Your task to perform on an android device: turn off wifi Image 0: 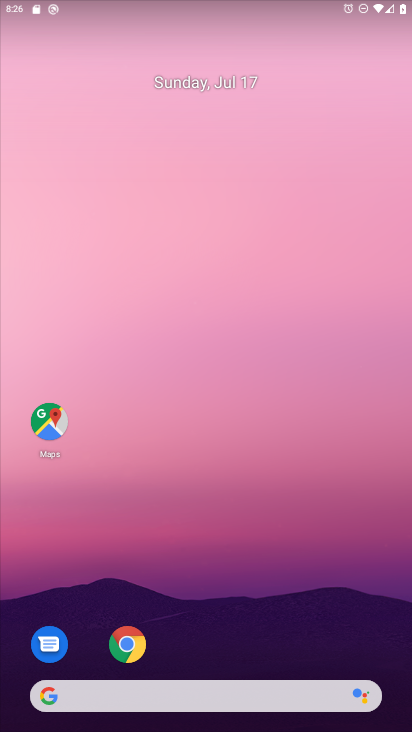
Step 0: drag from (238, 667) to (409, 388)
Your task to perform on an android device: turn off wifi Image 1: 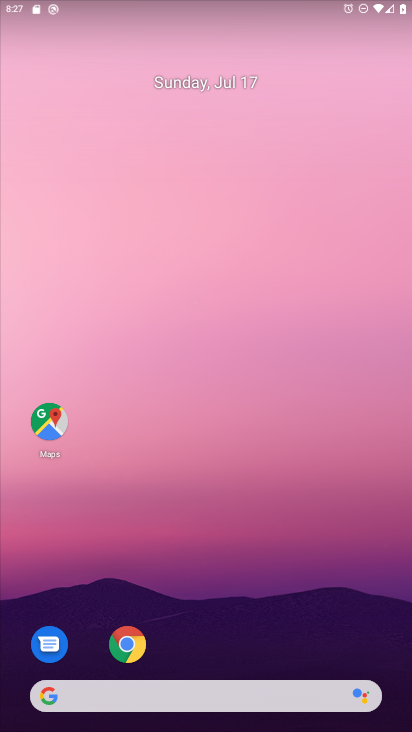
Step 1: click (201, 110)
Your task to perform on an android device: turn off wifi Image 2: 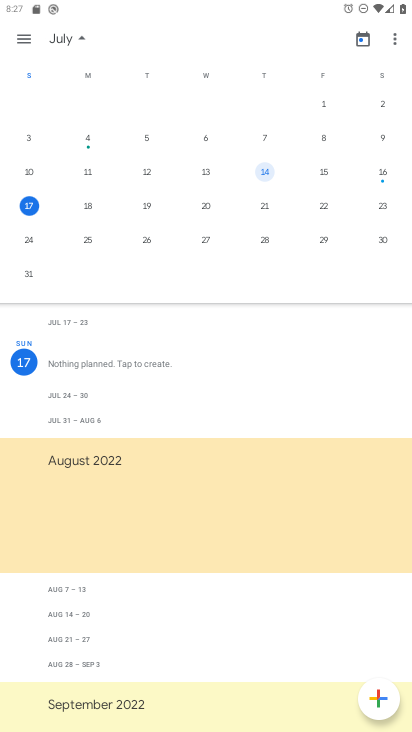
Step 2: press back button
Your task to perform on an android device: turn off wifi Image 3: 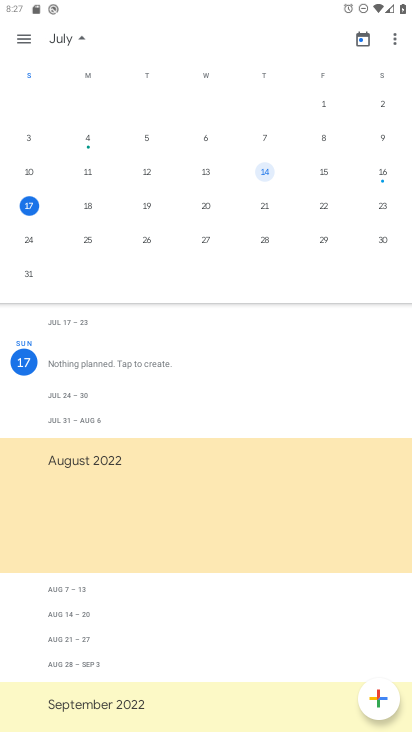
Step 3: press back button
Your task to perform on an android device: turn off wifi Image 4: 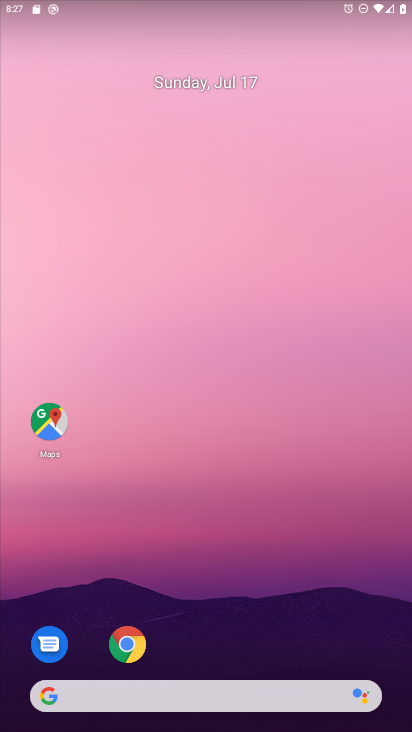
Step 4: drag from (284, 655) to (215, 133)
Your task to perform on an android device: turn off wifi Image 5: 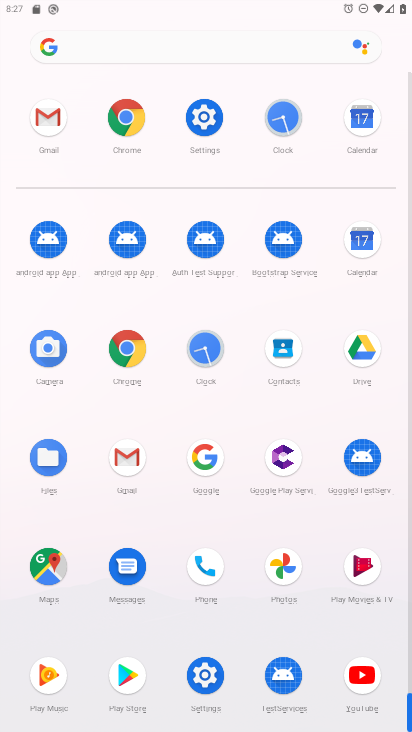
Step 5: click (208, 123)
Your task to perform on an android device: turn off wifi Image 6: 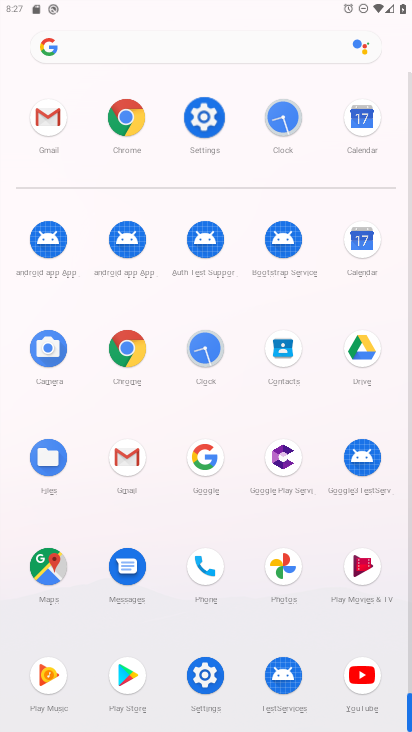
Step 6: click (210, 117)
Your task to perform on an android device: turn off wifi Image 7: 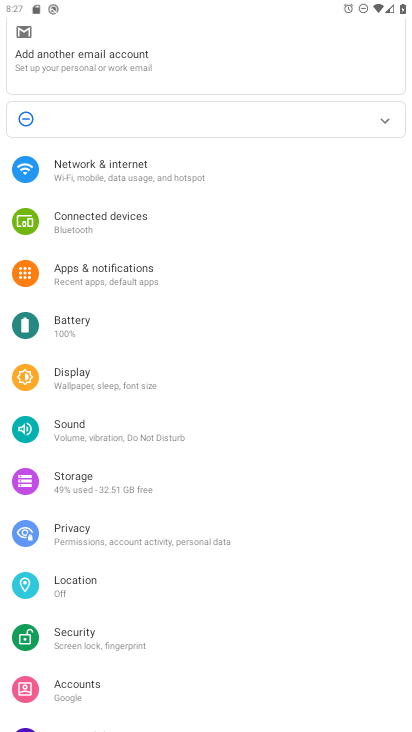
Step 7: click (107, 110)
Your task to perform on an android device: turn off wifi Image 8: 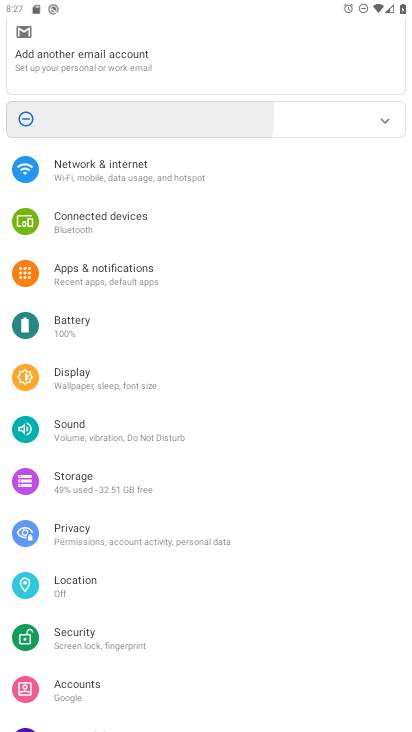
Step 8: click (101, 162)
Your task to perform on an android device: turn off wifi Image 9: 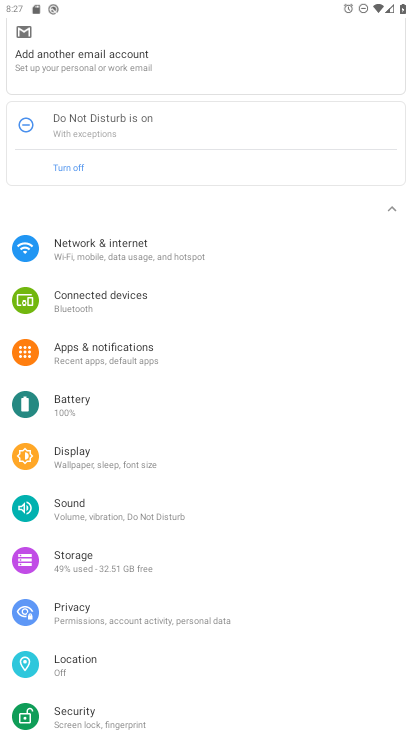
Step 9: click (103, 164)
Your task to perform on an android device: turn off wifi Image 10: 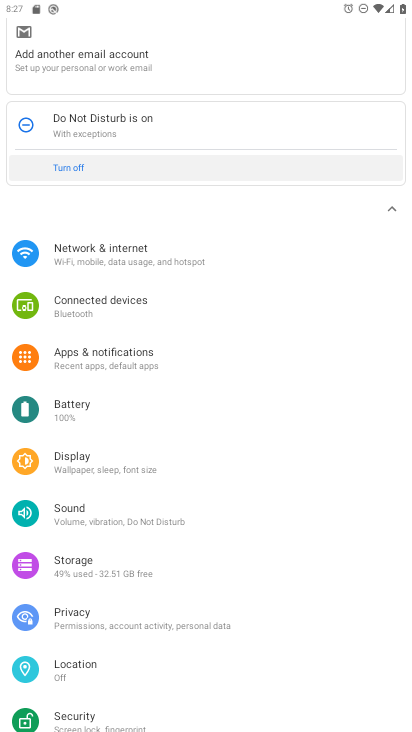
Step 10: click (114, 172)
Your task to perform on an android device: turn off wifi Image 11: 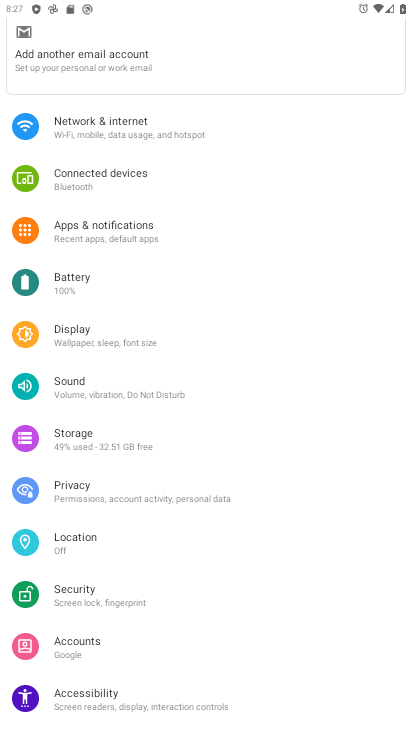
Step 11: click (106, 250)
Your task to perform on an android device: turn off wifi Image 12: 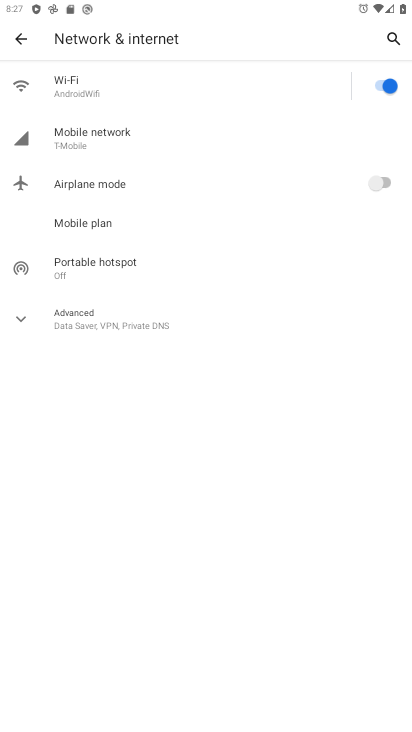
Step 12: click (102, 126)
Your task to perform on an android device: turn off wifi Image 13: 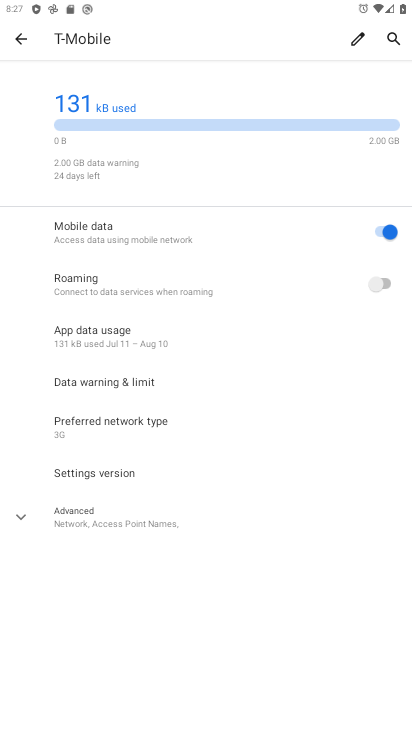
Step 13: click (12, 30)
Your task to perform on an android device: turn off wifi Image 14: 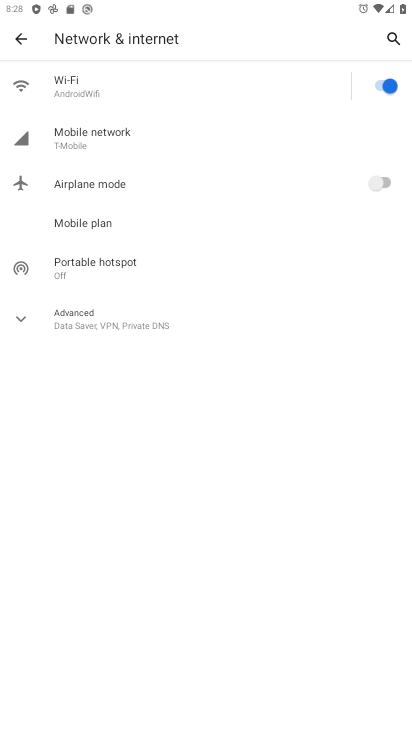
Step 14: click (392, 87)
Your task to perform on an android device: turn off wifi Image 15: 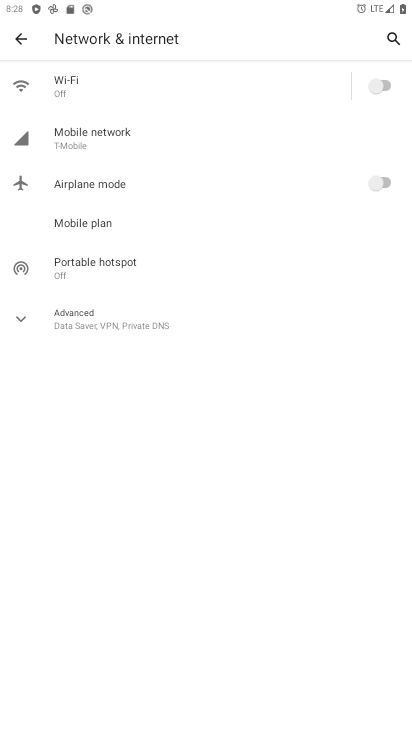
Step 15: press back button
Your task to perform on an android device: turn off wifi Image 16: 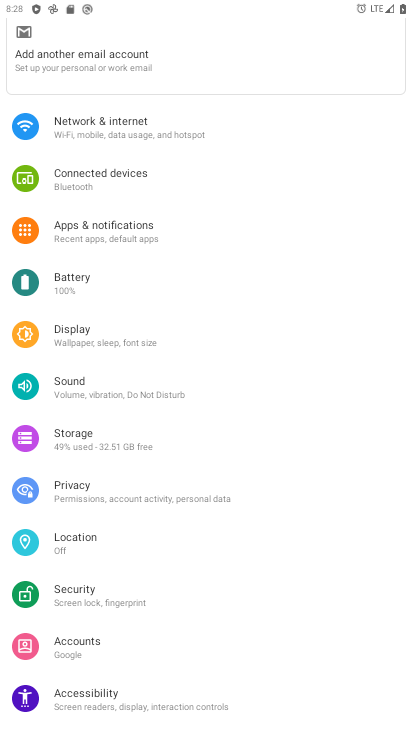
Step 16: click (121, 131)
Your task to perform on an android device: turn off wifi Image 17: 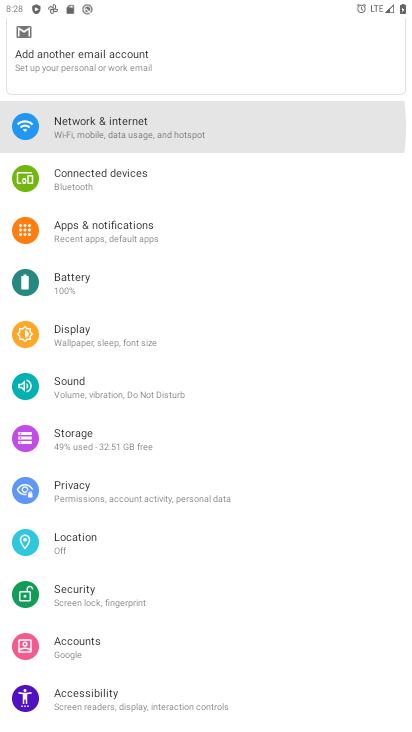
Step 17: click (121, 131)
Your task to perform on an android device: turn off wifi Image 18: 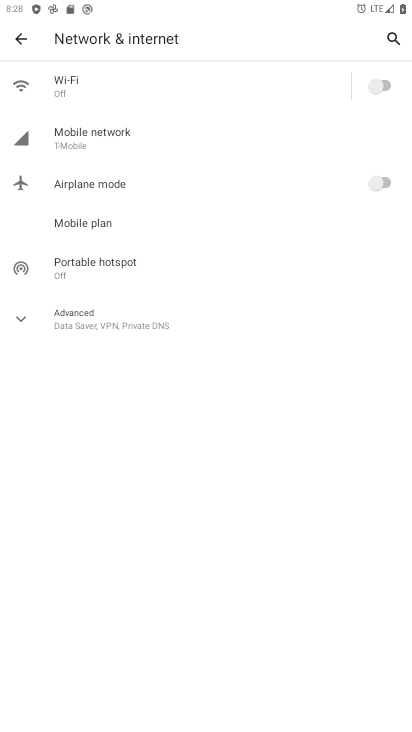
Step 18: task complete